Your task to perform on an android device: see tabs open on other devices in the chrome app Image 0: 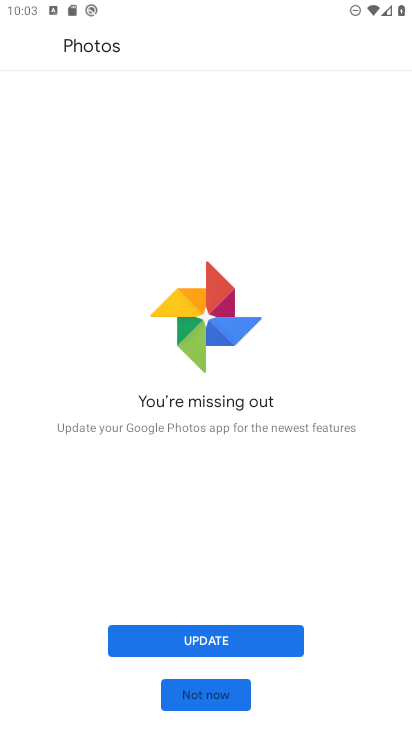
Step 0: press home button
Your task to perform on an android device: see tabs open on other devices in the chrome app Image 1: 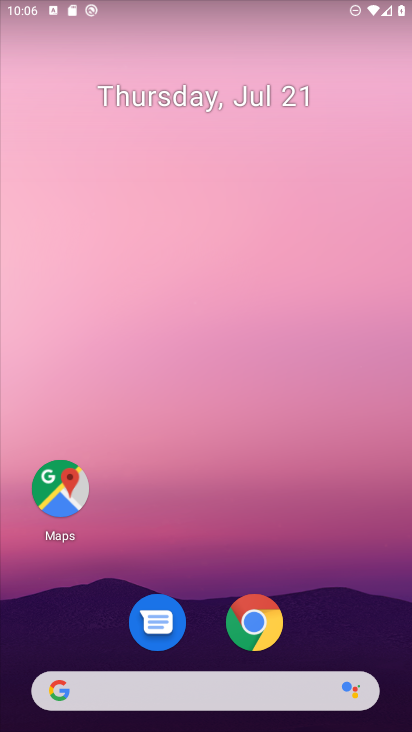
Step 1: click (265, 628)
Your task to perform on an android device: see tabs open on other devices in the chrome app Image 2: 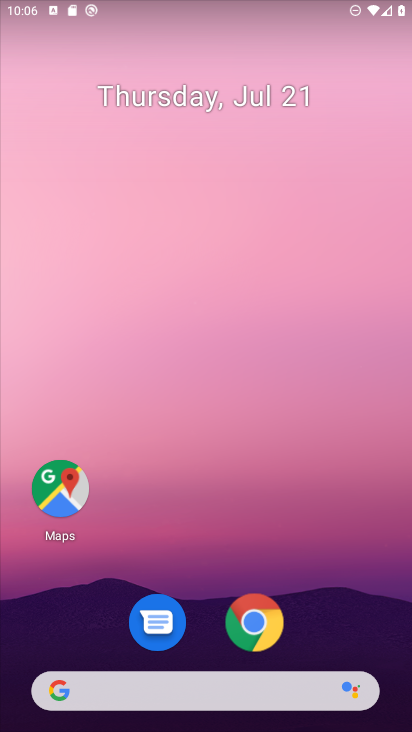
Step 2: click (265, 628)
Your task to perform on an android device: see tabs open on other devices in the chrome app Image 3: 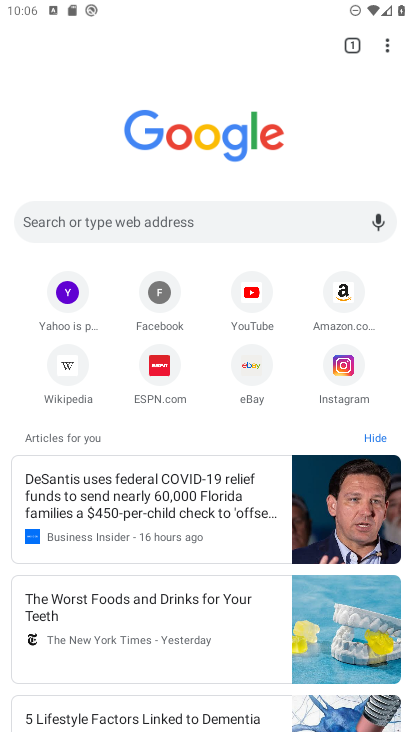
Step 3: click (391, 46)
Your task to perform on an android device: see tabs open on other devices in the chrome app Image 4: 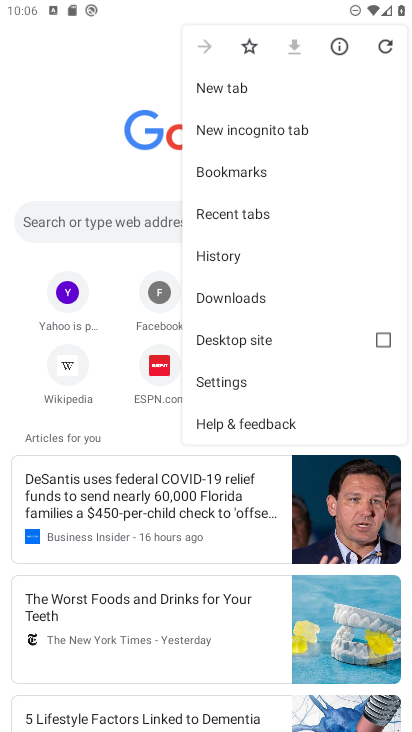
Step 4: click (265, 217)
Your task to perform on an android device: see tabs open on other devices in the chrome app Image 5: 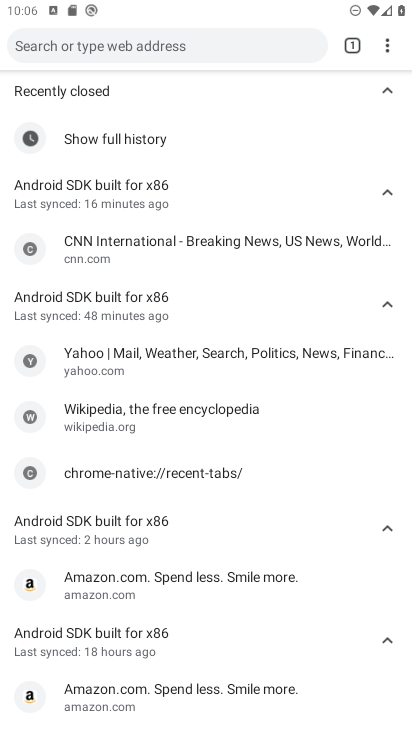
Step 5: task complete